Your task to perform on an android device: change the clock display to analog Image 0: 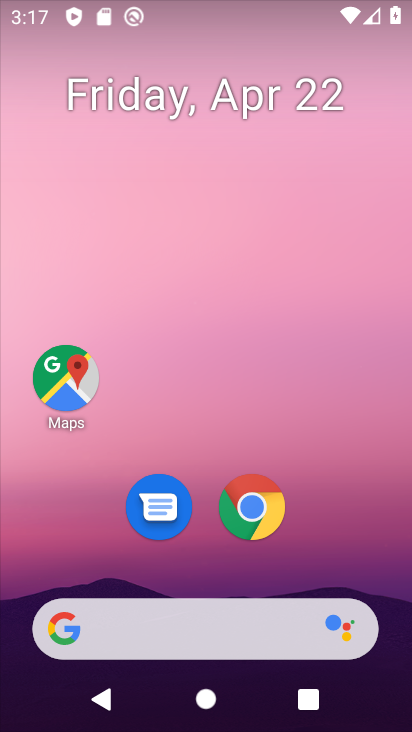
Step 0: drag from (215, 368) to (215, 89)
Your task to perform on an android device: change the clock display to analog Image 1: 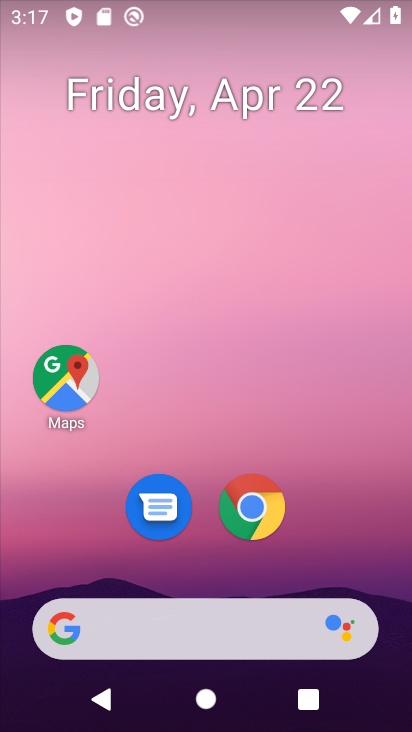
Step 1: drag from (207, 727) to (204, 88)
Your task to perform on an android device: change the clock display to analog Image 2: 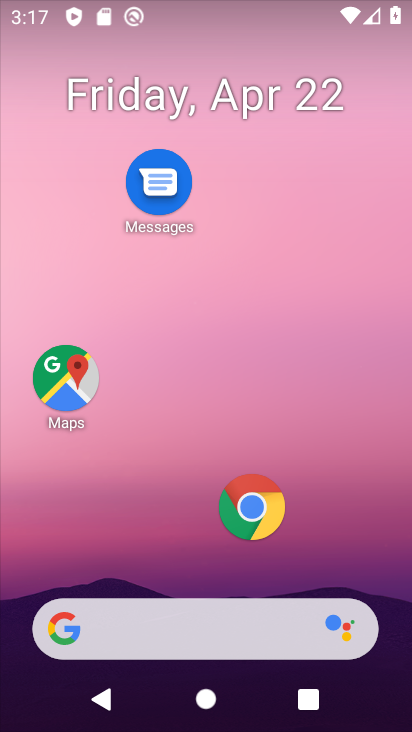
Step 2: drag from (226, 718) to (227, 139)
Your task to perform on an android device: change the clock display to analog Image 3: 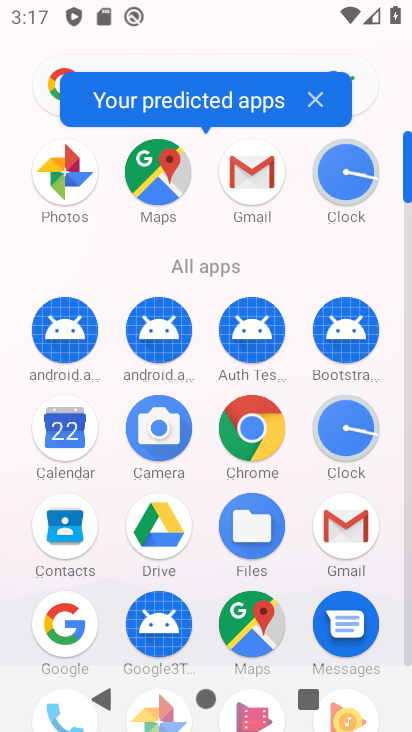
Step 3: click (352, 165)
Your task to perform on an android device: change the clock display to analog Image 4: 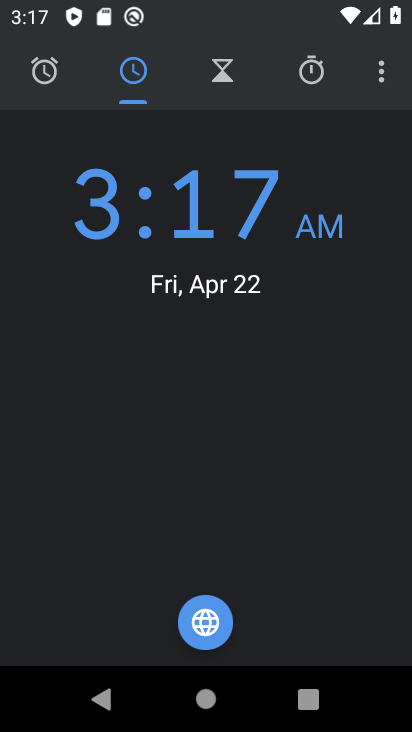
Step 4: click (382, 74)
Your task to perform on an android device: change the clock display to analog Image 5: 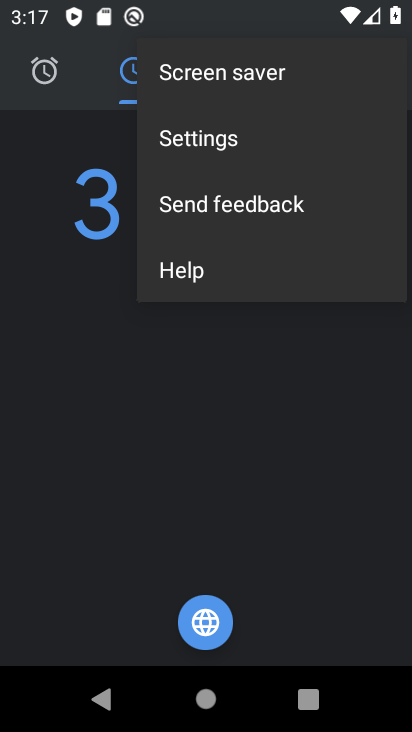
Step 5: click (205, 138)
Your task to perform on an android device: change the clock display to analog Image 6: 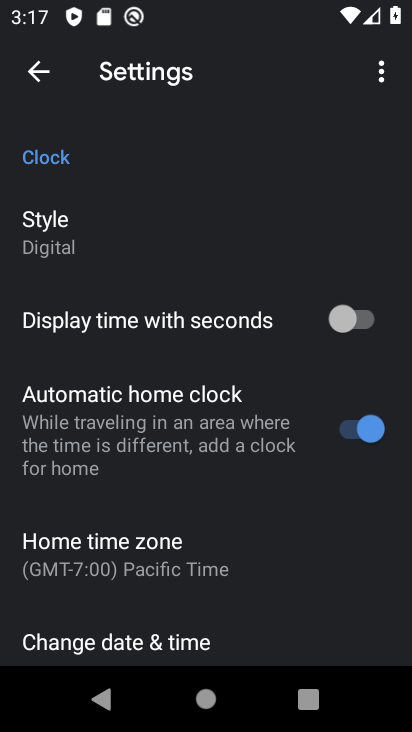
Step 6: click (37, 226)
Your task to perform on an android device: change the clock display to analog Image 7: 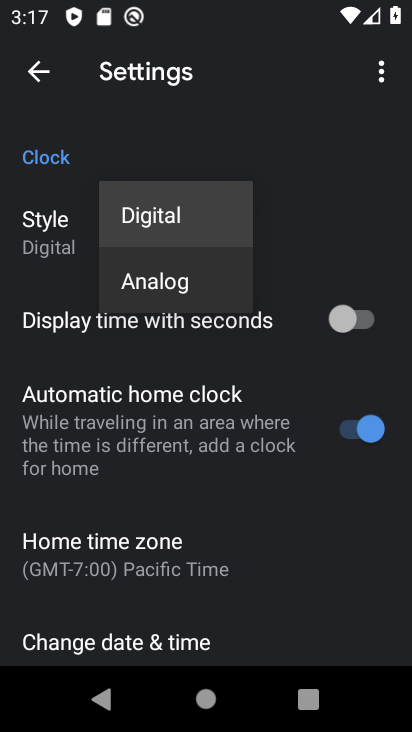
Step 7: click (144, 276)
Your task to perform on an android device: change the clock display to analog Image 8: 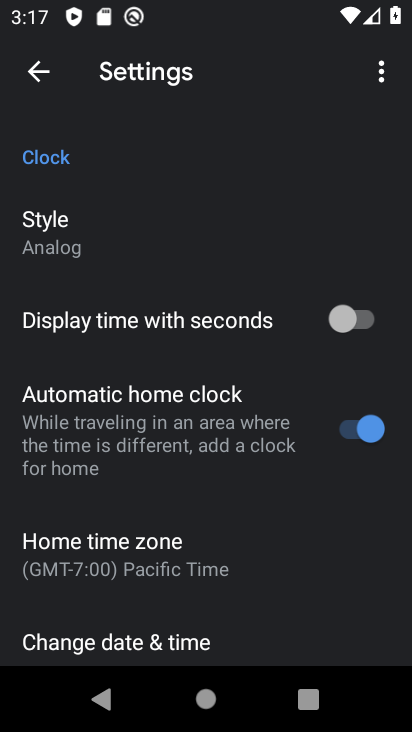
Step 8: task complete